Your task to perform on an android device: change the clock style Image 0: 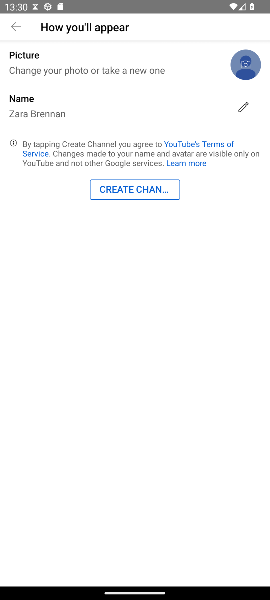
Step 0: press home button
Your task to perform on an android device: change the clock style Image 1: 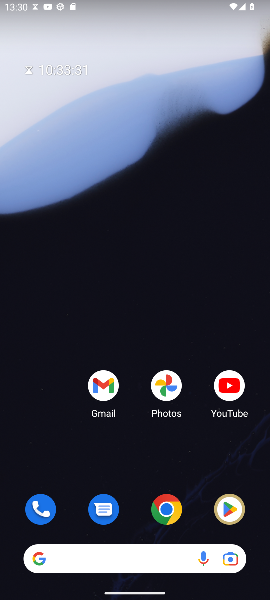
Step 1: drag from (128, 525) to (166, 128)
Your task to perform on an android device: change the clock style Image 2: 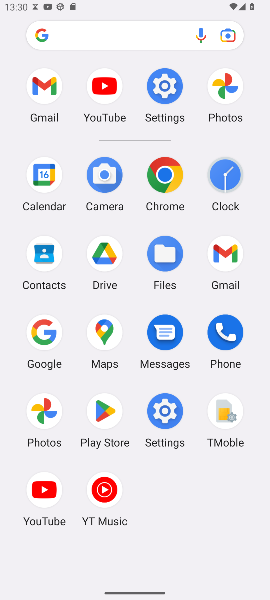
Step 2: click (223, 171)
Your task to perform on an android device: change the clock style Image 3: 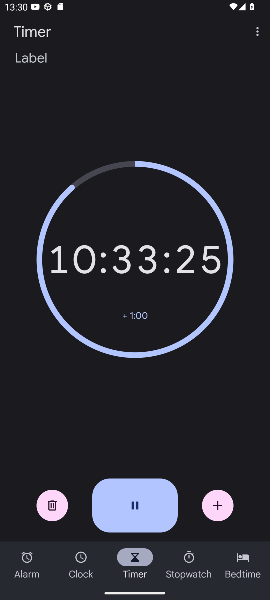
Step 3: click (255, 31)
Your task to perform on an android device: change the clock style Image 4: 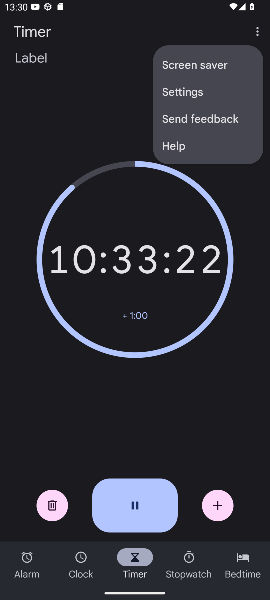
Step 4: click (181, 90)
Your task to perform on an android device: change the clock style Image 5: 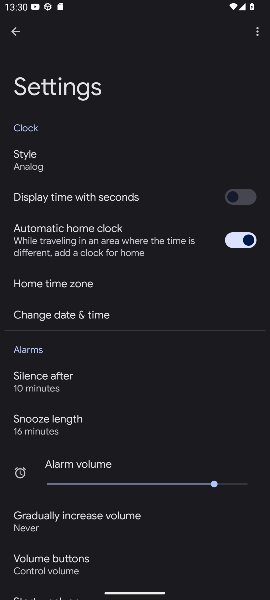
Step 5: click (20, 163)
Your task to perform on an android device: change the clock style Image 6: 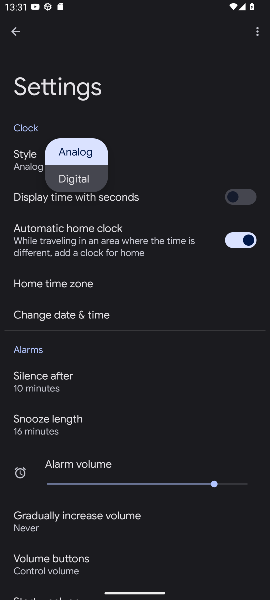
Step 6: click (66, 176)
Your task to perform on an android device: change the clock style Image 7: 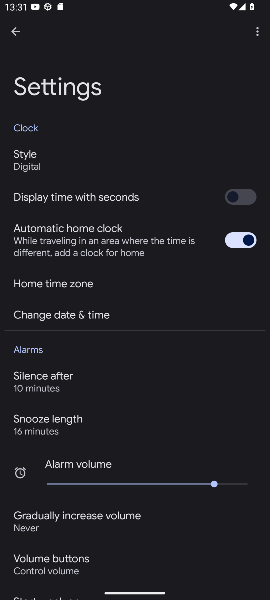
Step 7: task complete